Your task to perform on an android device: Go to location settings Image 0: 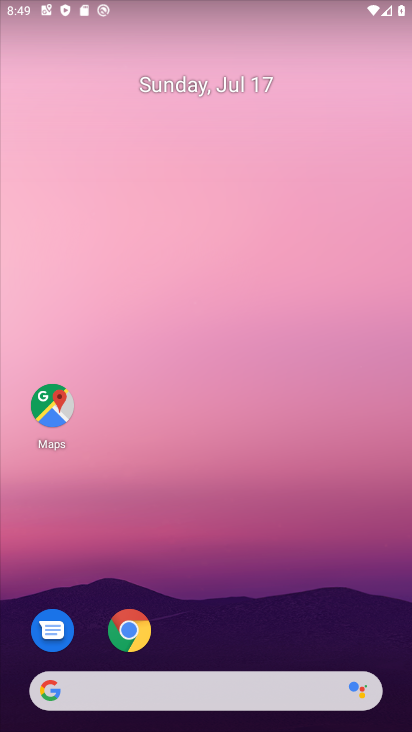
Step 0: drag from (192, 676) to (289, 95)
Your task to perform on an android device: Go to location settings Image 1: 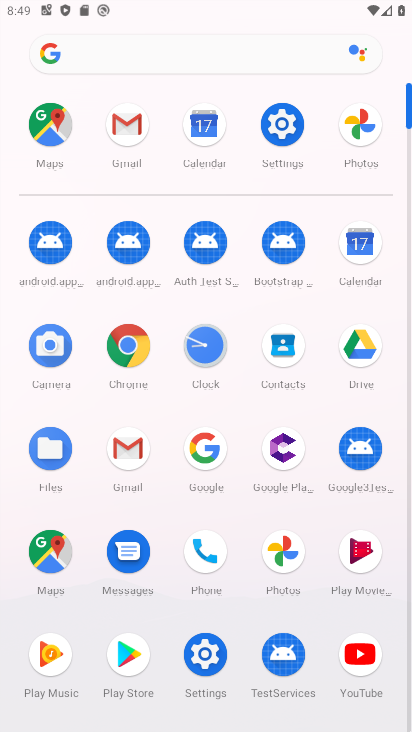
Step 1: click (275, 126)
Your task to perform on an android device: Go to location settings Image 2: 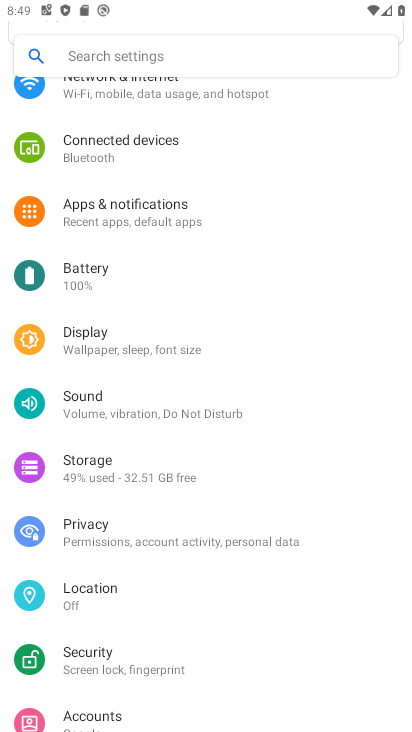
Step 2: click (127, 601)
Your task to perform on an android device: Go to location settings Image 3: 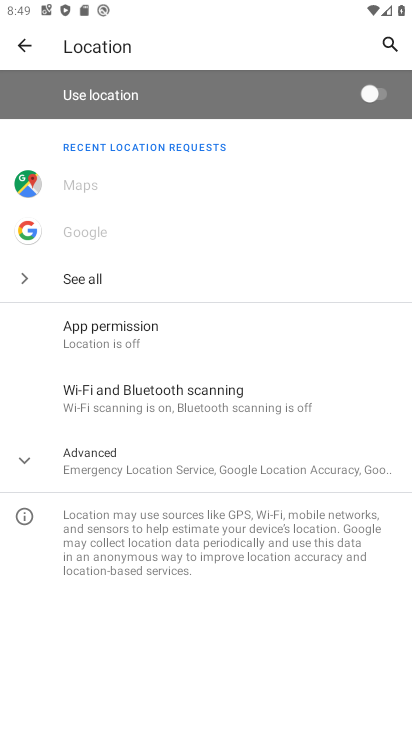
Step 3: task complete